Your task to perform on an android device: change notifications settings Image 0: 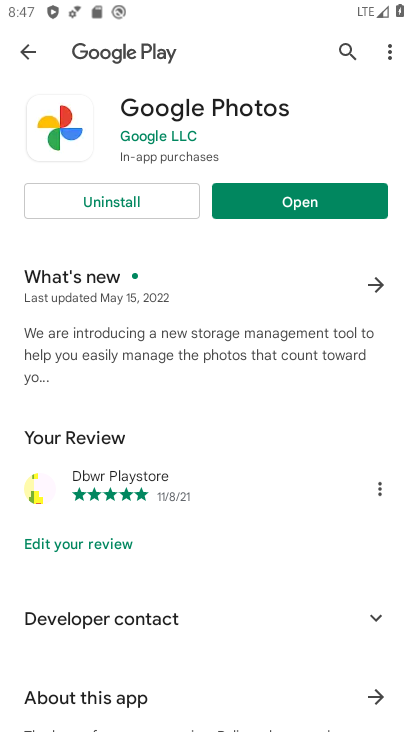
Step 0: press home button
Your task to perform on an android device: change notifications settings Image 1: 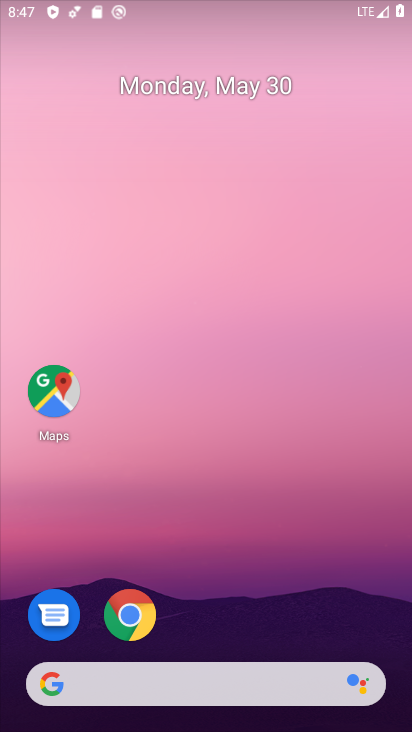
Step 1: drag from (149, 724) to (309, 69)
Your task to perform on an android device: change notifications settings Image 2: 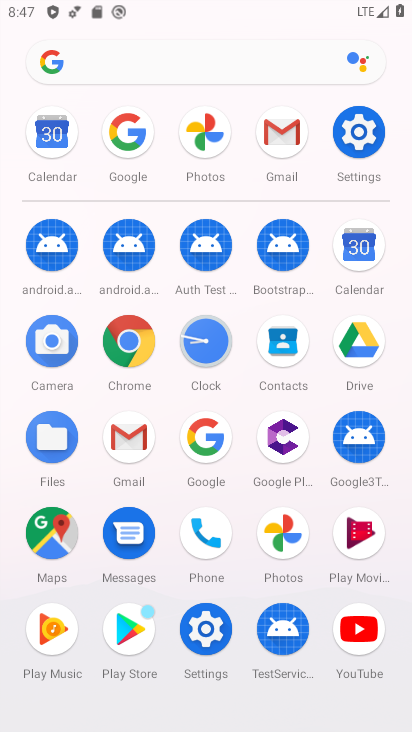
Step 2: click (215, 636)
Your task to perform on an android device: change notifications settings Image 3: 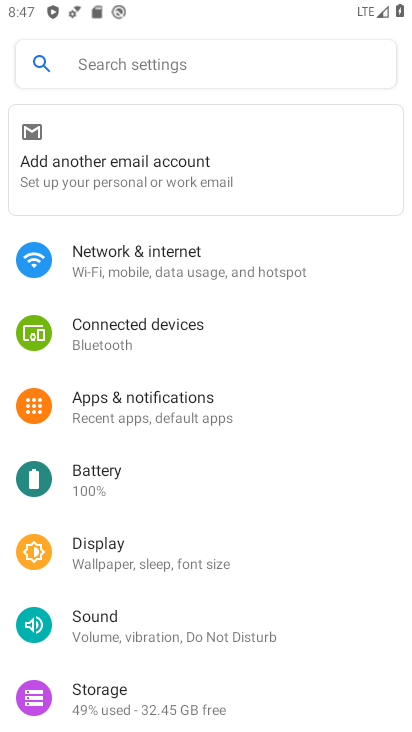
Step 3: click (175, 405)
Your task to perform on an android device: change notifications settings Image 4: 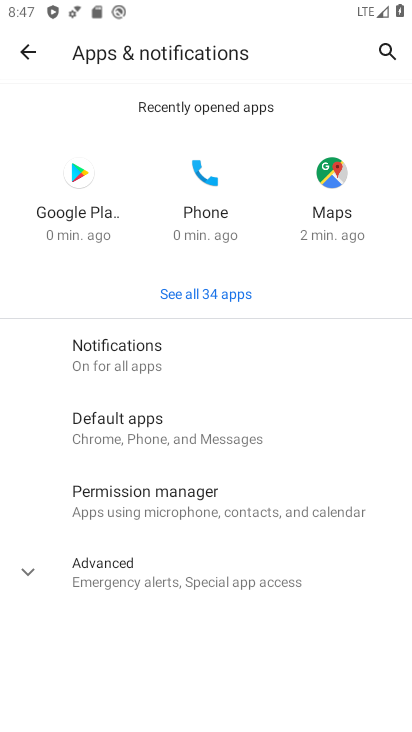
Step 4: click (180, 393)
Your task to perform on an android device: change notifications settings Image 5: 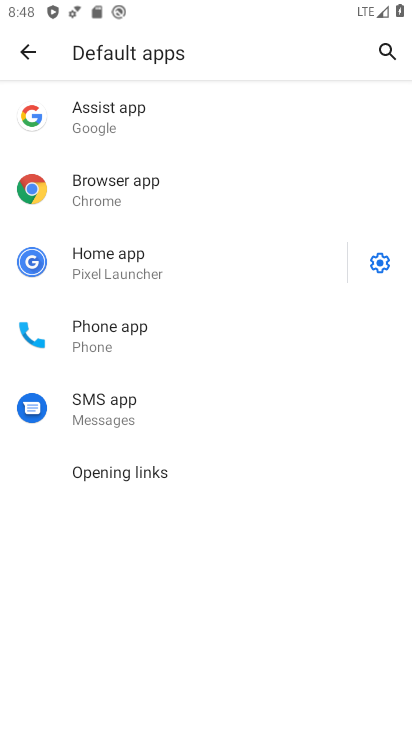
Step 5: press back button
Your task to perform on an android device: change notifications settings Image 6: 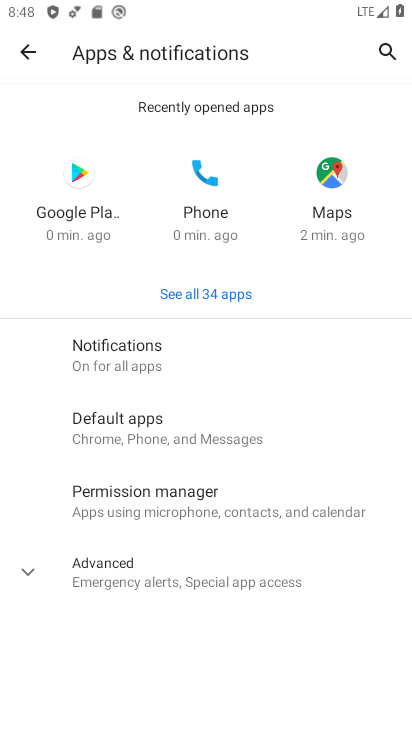
Step 6: click (178, 364)
Your task to perform on an android device: change notifications settings Image 7: 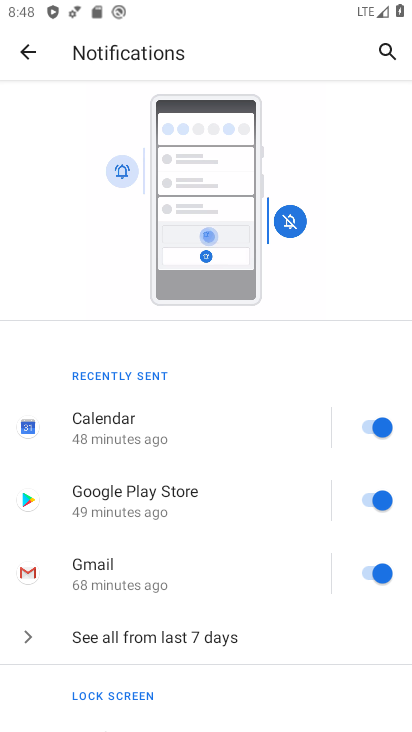
Step 7: click (391, 434)
Your task to perform on an android device: change notifications settings Image 8: 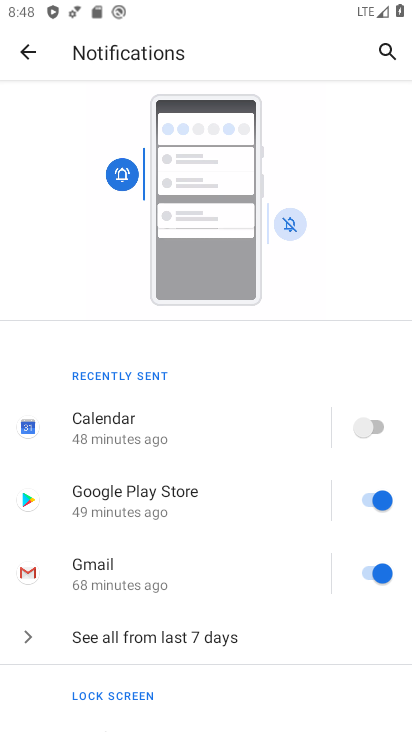
Step 8: task complete